Your task to perform on an android device: allow notifications from all sites in the chrome app Image 0: 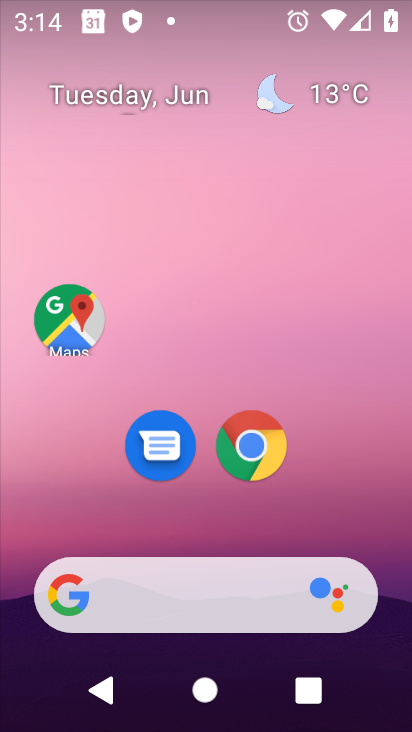
Step 0: click (254, 446)
Your task to perform on an android device: allow notifications from all sites in the chrome app Image 1: 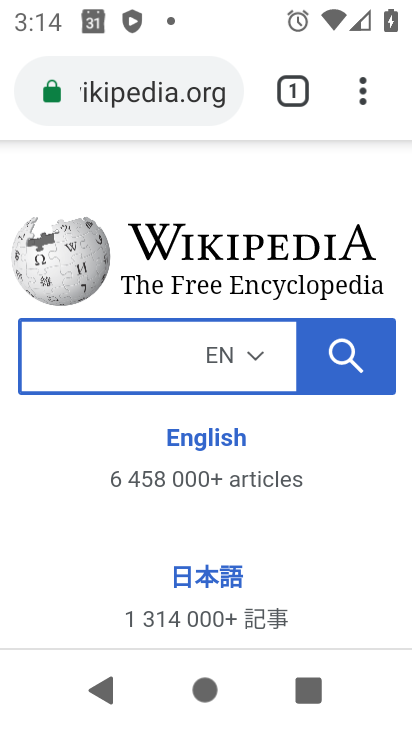
Step 1: click (359, 97)
Your task to perform on an android device: allow notifications from all sites in the chrome app Image 2: 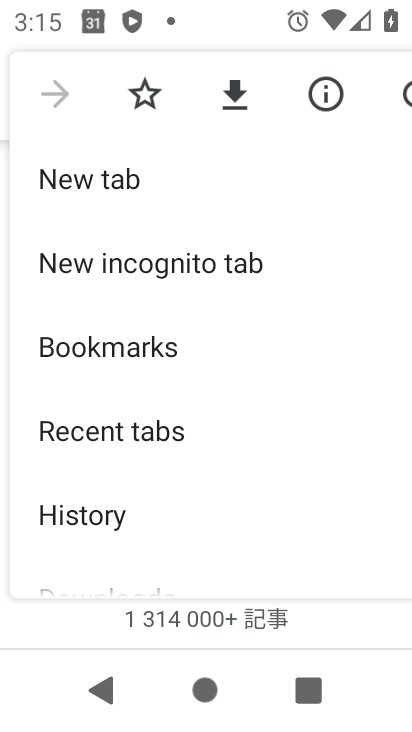
Step 2: drag from (229, 515) to (275, 187)
Your task to perform on an android device: allow notifications from all sites in the chrome app Image 3: 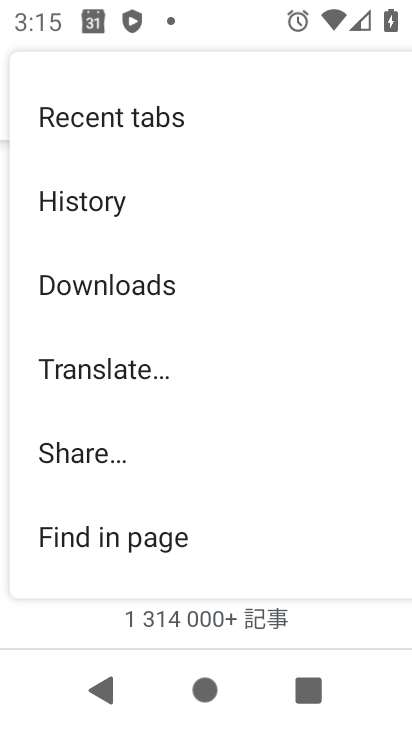
Step 3: drag from (236, 550) to (258, 251)
Your task to perform on an android device: allow notifications from all sites in the chrome app Image 4: 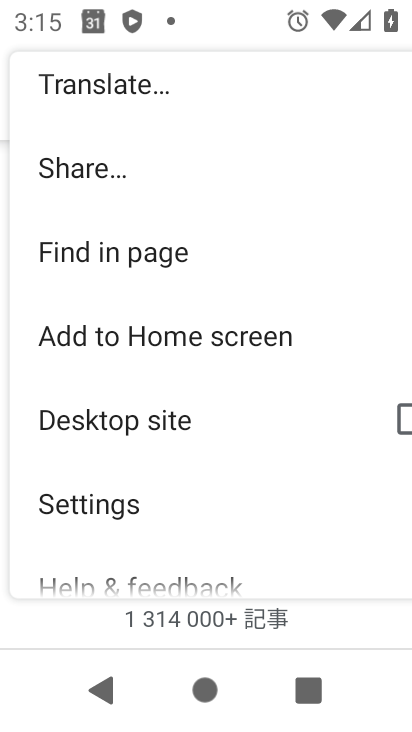
Step 4: click (79, 505)
Your task to perform on an android device: allow notifications from all sites in the chrome app Image 5: 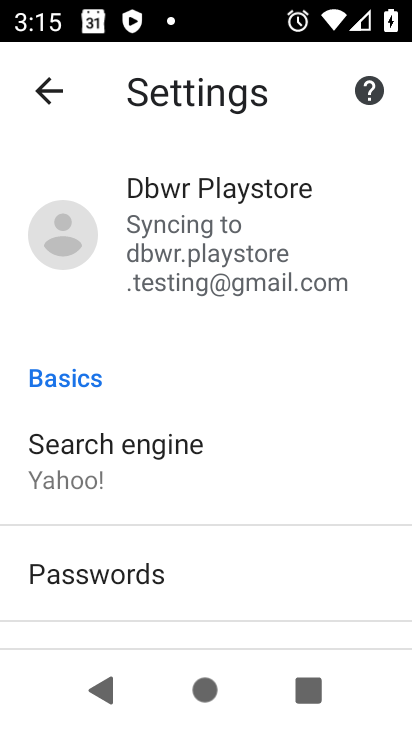
Step 5: drag from (249, 593) to (238, 177)
Your task to perform on an android device: allow notifications from all sites in the chrome app Image 6: 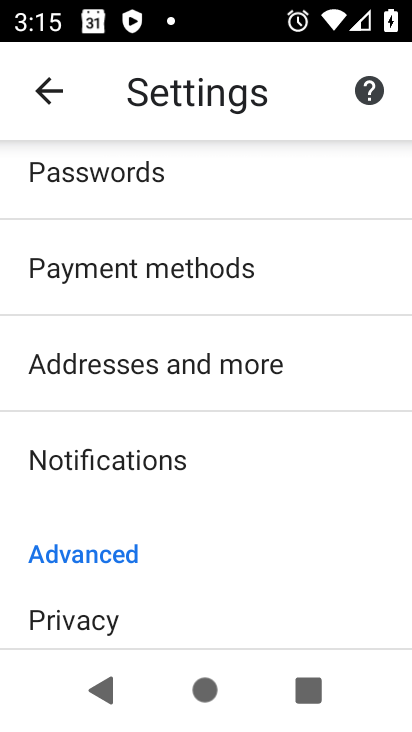
Step 6: drag from (249, 578) to (289, 242)
Your task to perform on an android device: allow notifications from all sites in the chrome app Image 7: 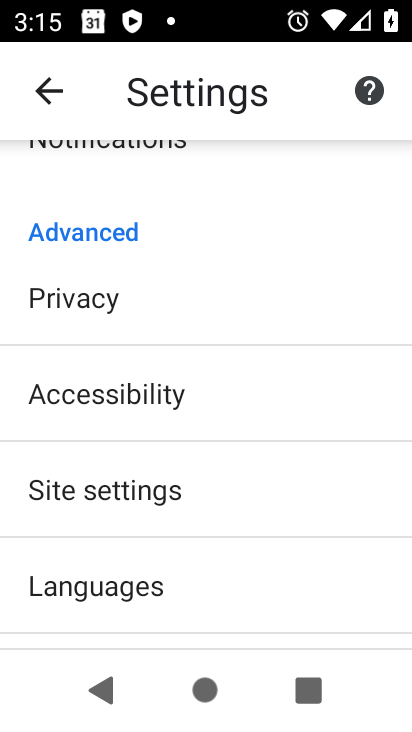
Step 7: click (125, 491)
Your task to perform on an android device: allow notifications from all sites in the chrome app Image 8: 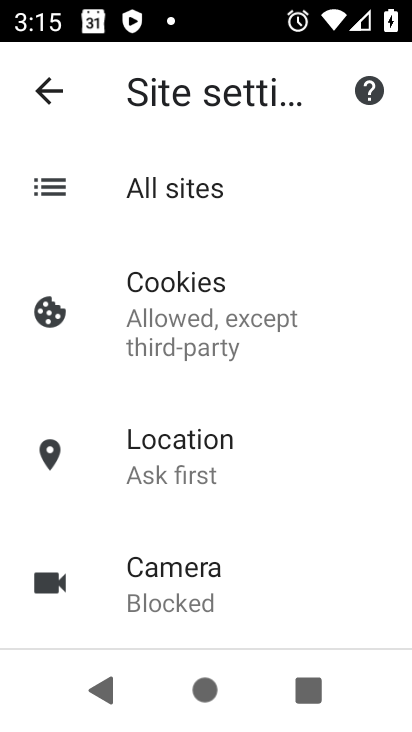
Step 8: drag from (294, 588) to (272, 262)
Your task to perform on an android device: allow notifications from all sites in the chrome app Image 9: 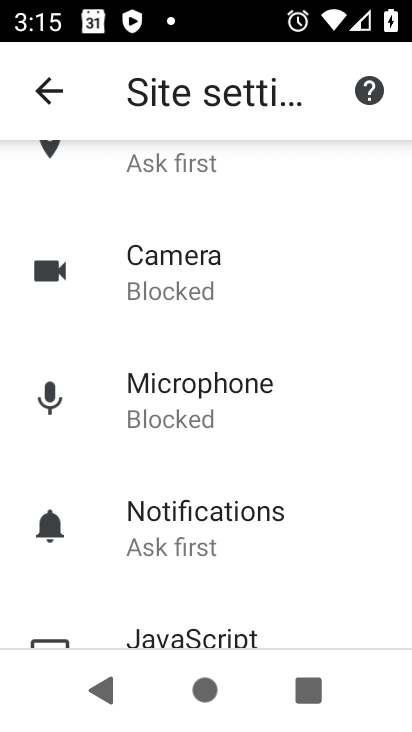
Step 9: click (182, 516)
Your task to perform on an android device: allow notifications from all sites in the chrome app Image 10: 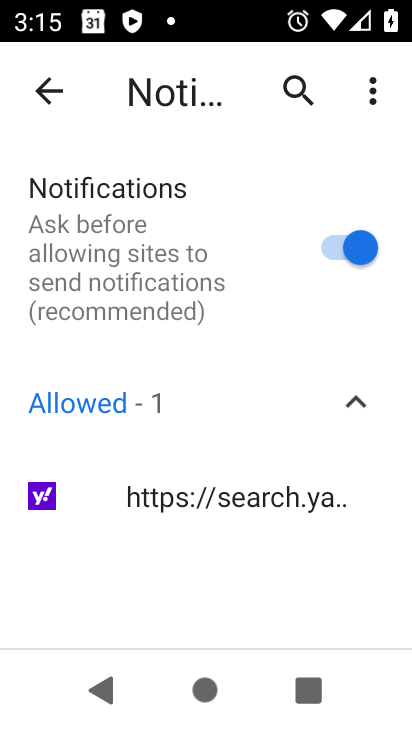
Step 10: task complete